Your task to perform on an android device: check android version Image 0: 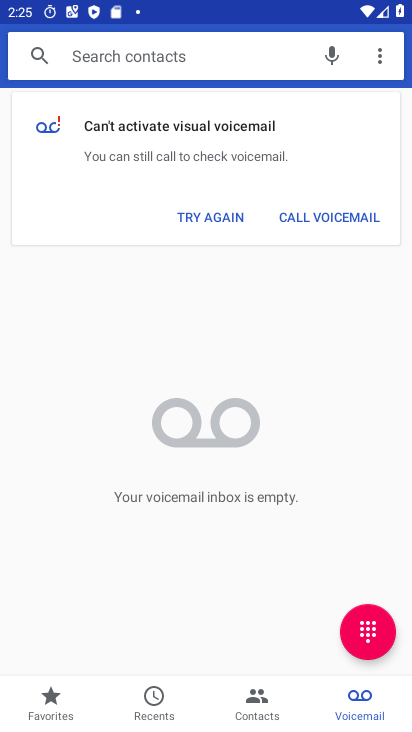
Step 0: drag from (188, 603) to (190, 292)
Your task to perform on an android device: check android version Image 1: 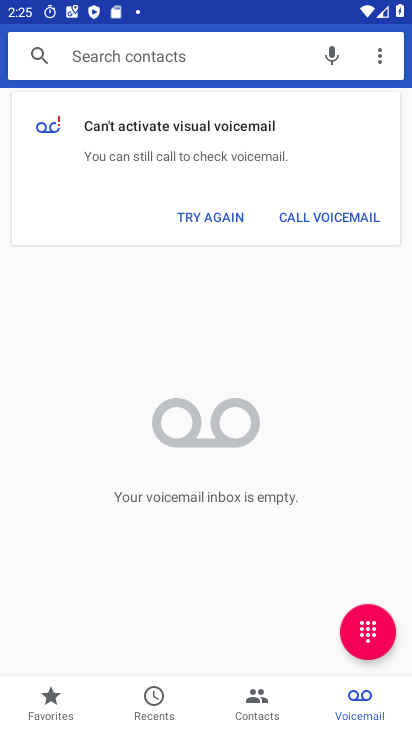
Step 1: press home button
Your task to perform on an android device: check android version Image 2: 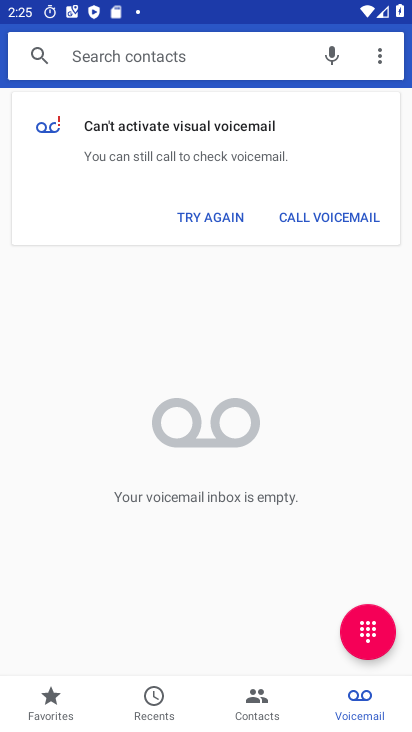
Step 2: drag from (199, 510) to (234, 47)
Your task to perform on an android device: check android version Image 3: 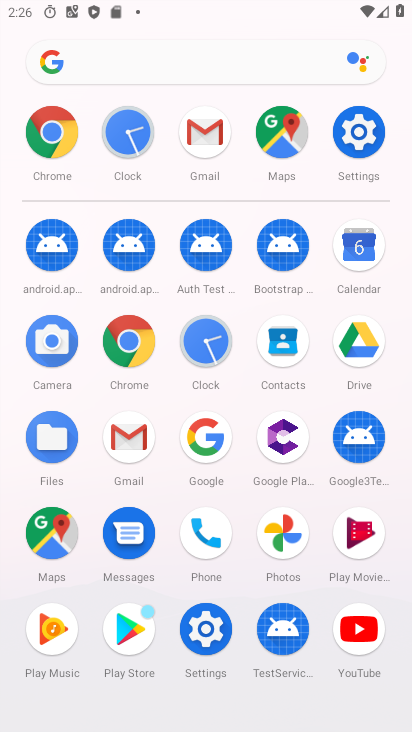
Step 3: click (354, 129)
Your task to perform on an android device: check android version Image 4: 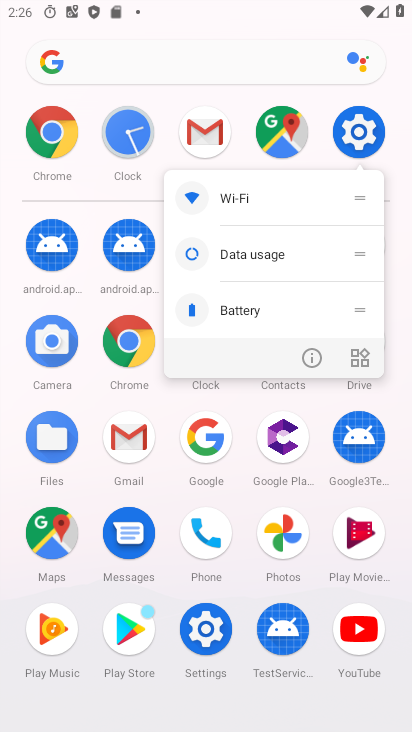
Step 4: click (316, 358)
Your task to perform on an android device: check android version Image 5: 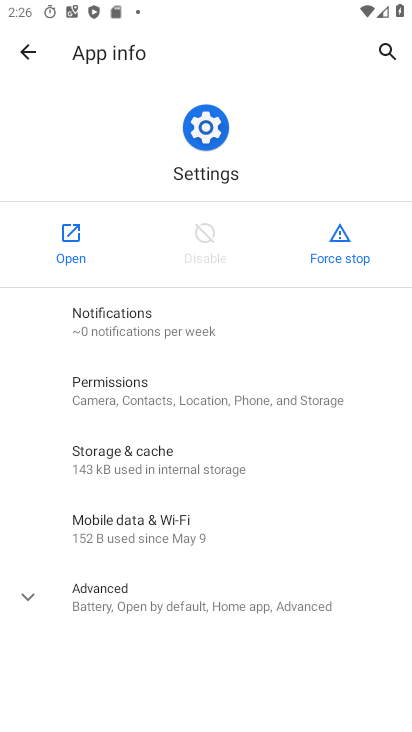
Step 5: click (91, 239)
Your task to perform on an android device: check android version Image 6: 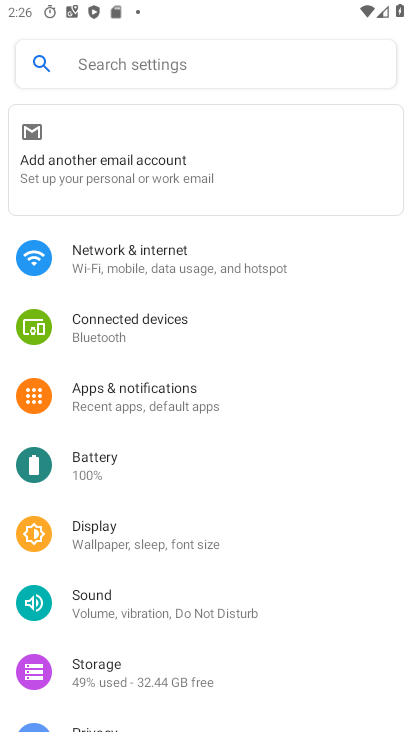
Step 6: drag from (198, 581) to (258, 96)
Your task to perform on an android device: check android version Image 7: 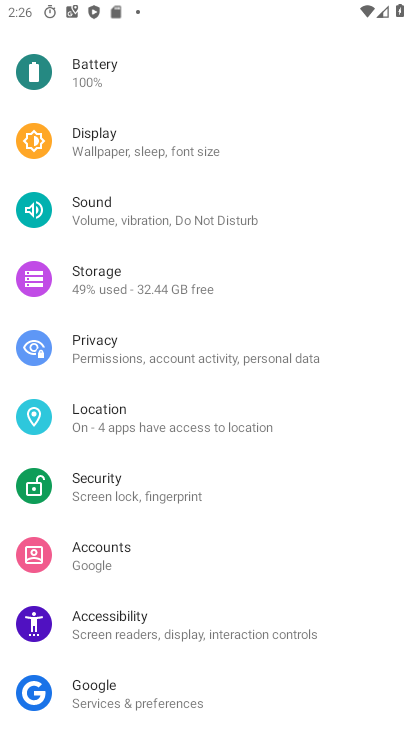
Step 7: drag from (181, 520) to (221, 228)
Your task to perform on an android device: check android version Image 8: 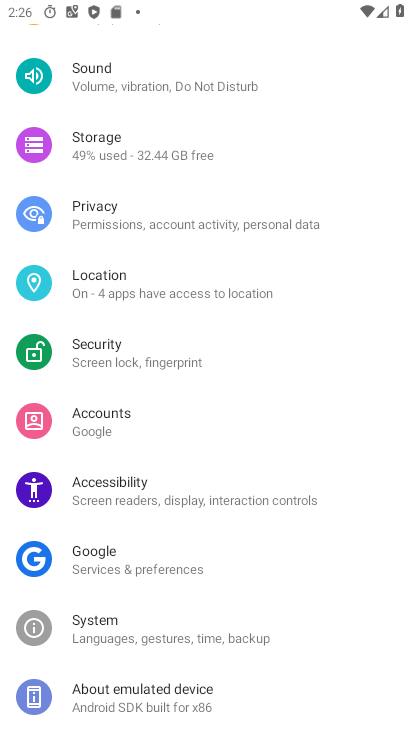
Step 8: click (144, 694)
Your task to perform on an android device: check android version Image 9: 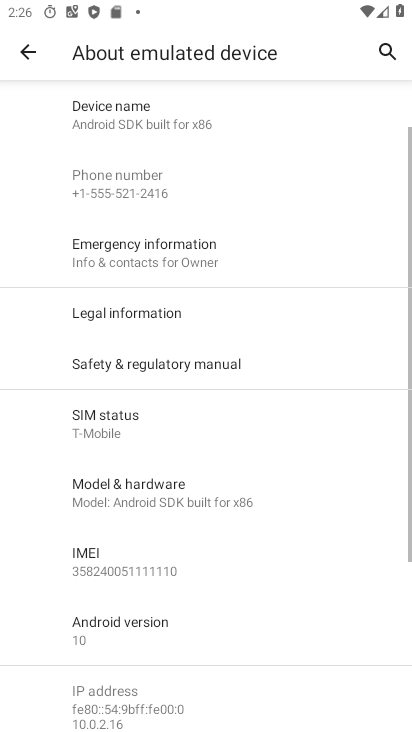
Step 9: drag from (207, 643) to (281, 229)
Your task to perform on an android device: check android version Image 10: 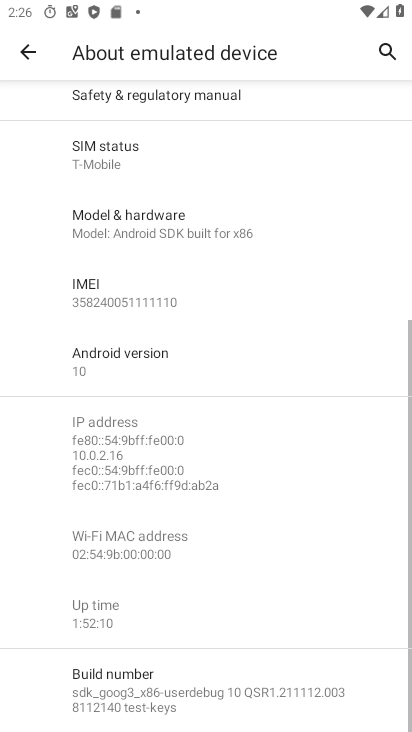
Step 10: click (167, 367)
Your task to perform on an android device: check android version Image 11: 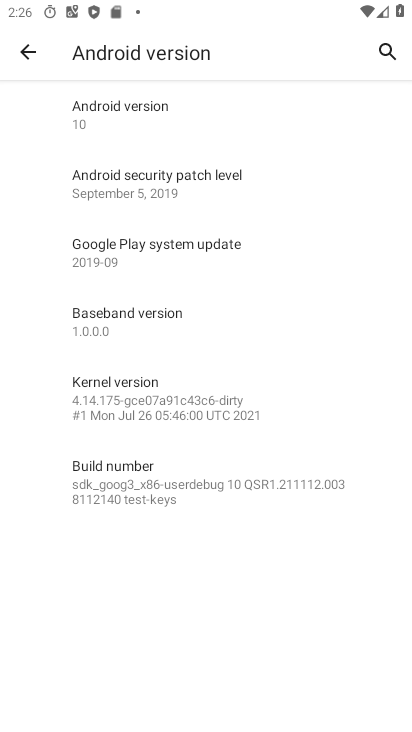
Step 11: task complete